Your task to perform on an android device: open chrome and create a bookmark for the current page Image 0: 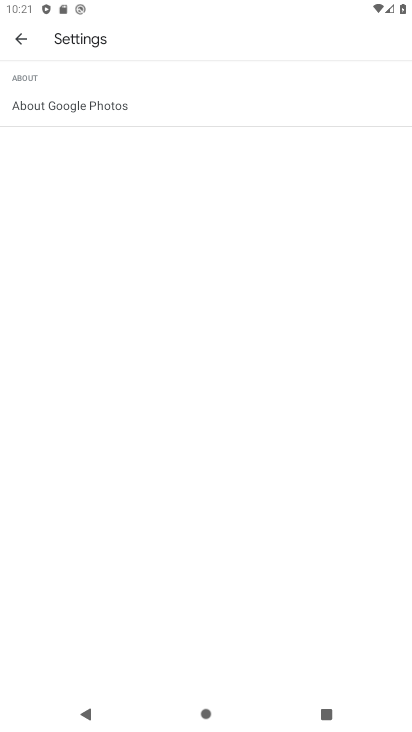
Step 0: press home button
Your task to perform on an android device: open chrome and create a bookmark for the current page Image 1: 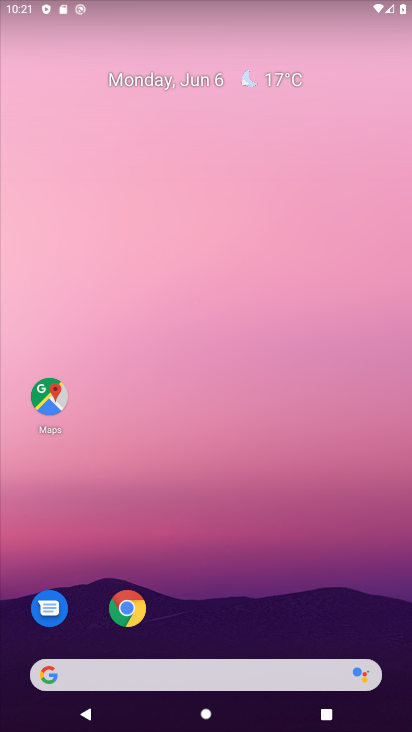
Step 1: drag from (271, 640) to (283, 28)
Your task to perform on an android device: open chrome and create a bookmark for the current page Image 2: 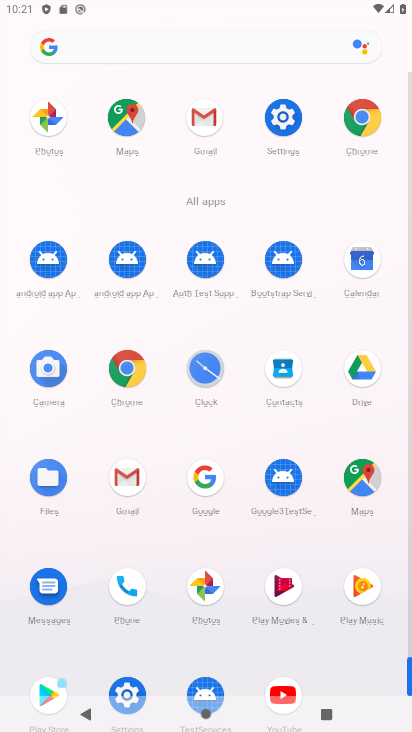
Step 2: click (133, 379)
Your task to perform on an android device: open chrome and create a bookmark for the current page Image 3: 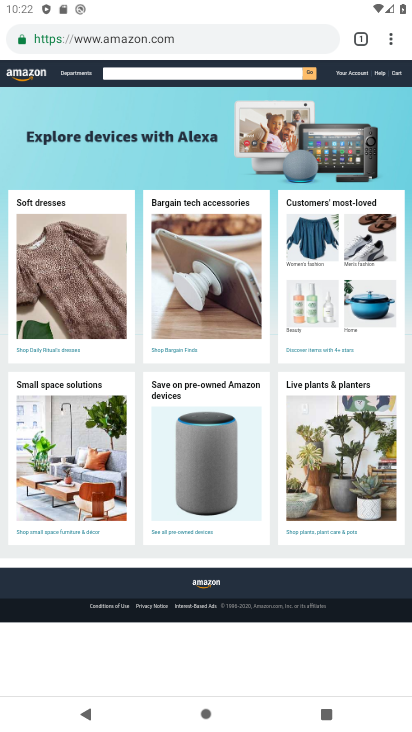
Step 3: click (402, 46)
Your task to perform on an android device: open chrome and create a bookmark for the current page Image 4: 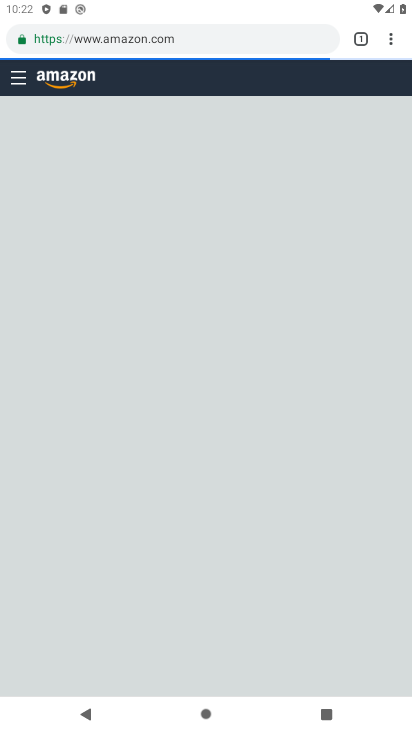
Step 4: click (393, 46)
Your task to perform on an android device: open chrome and create a bookmark for the current page Image 5: 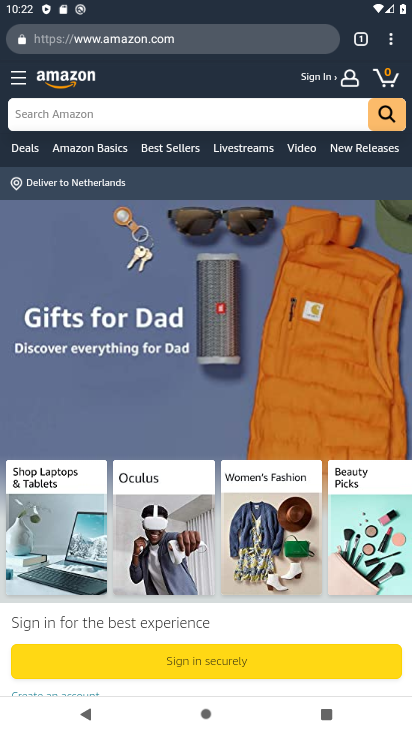
Step 5: click (394, 45)
Your task to perform on an android device: open chrome and create a bookmark for the current page Image 6: 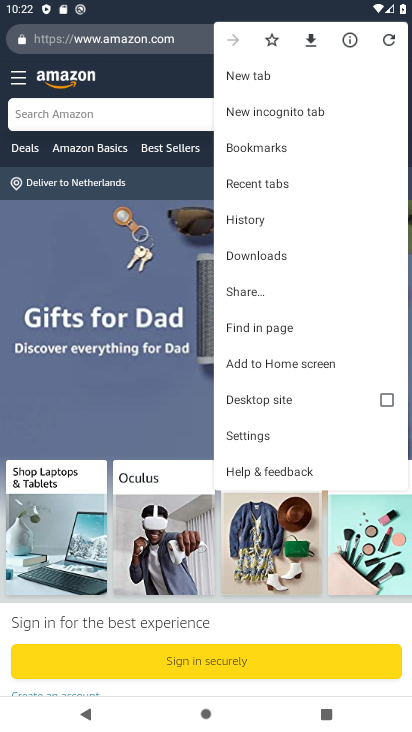
Step 6: click (272, 38)
Your task to perform on an android device: open chrome and create a bookmark for the current page Image 7: 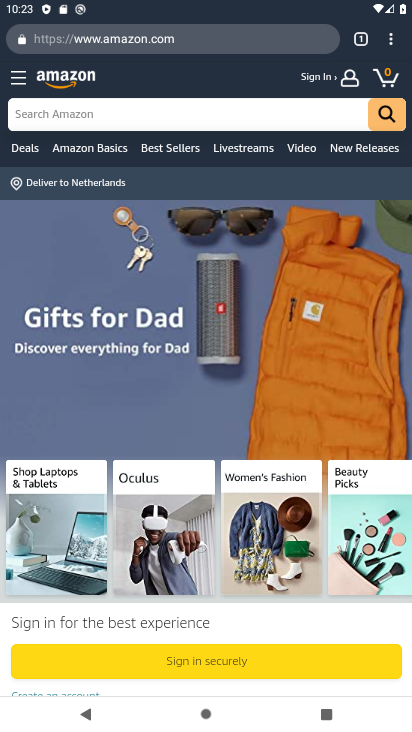
Step 7: task complete